Your task to perform on an android device: Search for Mexican restaurants on Maps Image 0: 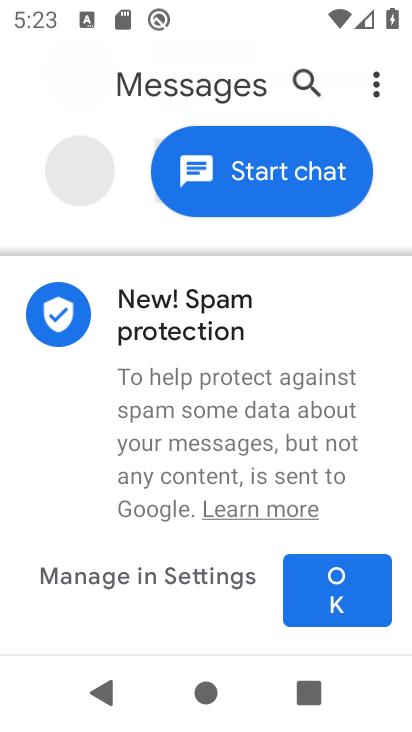
Step 0: press home button
Your task to perform on an android device: Search for Mexican restaurants on Maps Image 1: 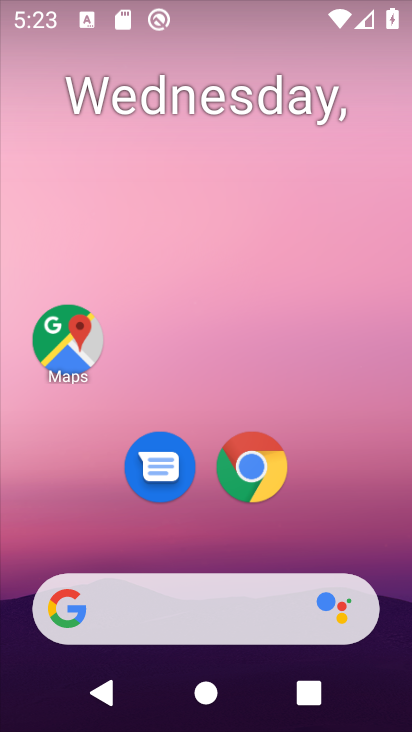
Step 1: drag from (322, 396) to (255, 113)
Your task to perform on an android device: Search for Mexican restaurants on Maps Image 2: 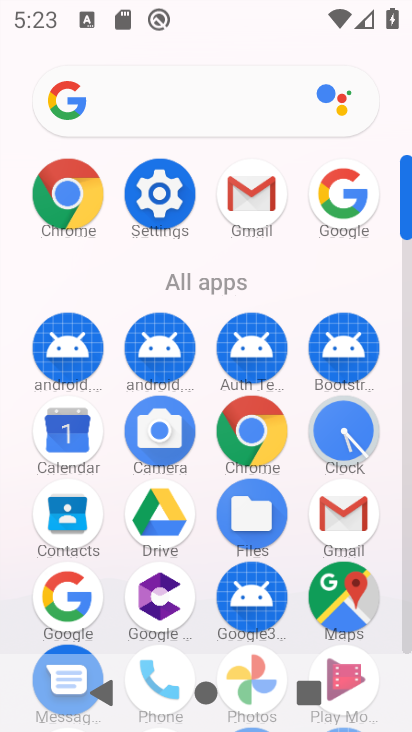
Step 2: click (346, 607)
Your task to perform on an android device: Search for Mexican restaurants on Maps Image 3: 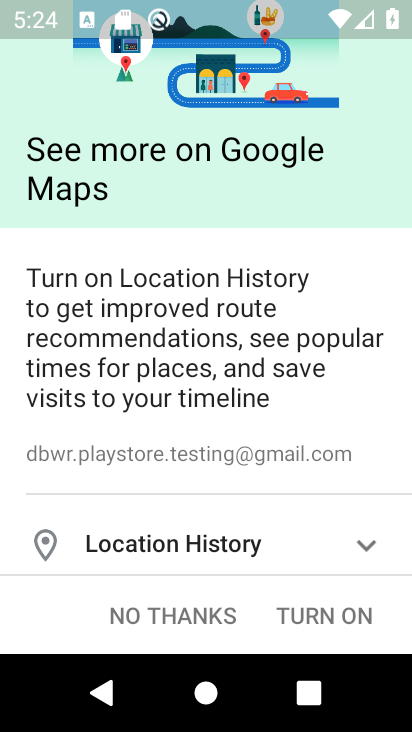
Step 3: click (219, 615)
Your task to perform on an android device: Search for Mexican restaurants on Maps Image 4: 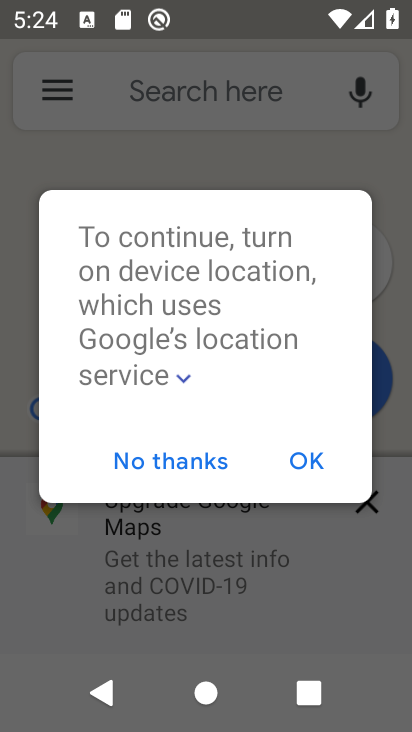
Step 4: click (206, 468)
Your task to perform on an android device: Search for Mexican restaurants on Maps Image 5: 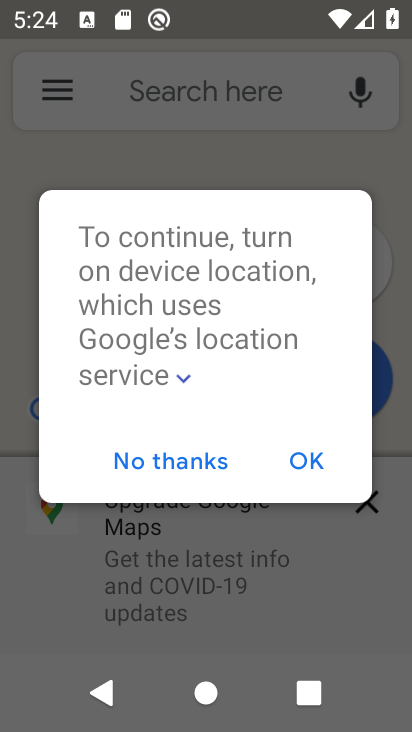
Step 5: click (237, 82)
Your task to perform on an android device: Search for Mexican restaurants on Maps Image 6: 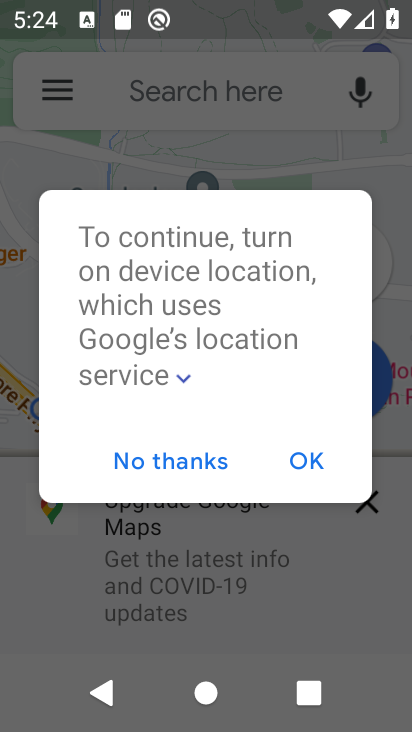
Step 6: click (186, 461)
Your task to perform on an android device: Search for Mexican restaurants on Maps Image 7: 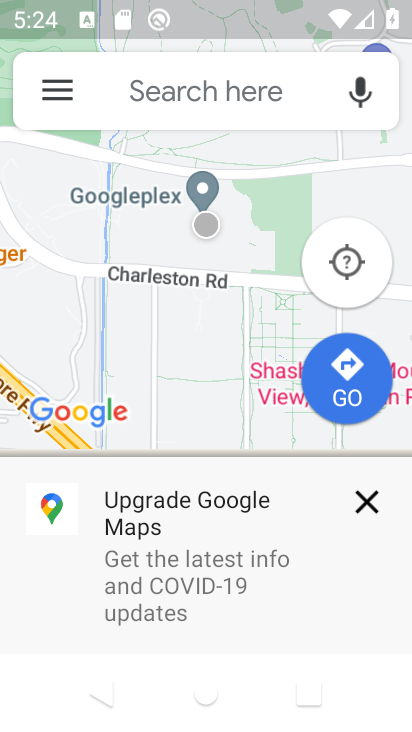
Step 7: click (231, 86)
Your task to perform on an android device: Search for Mexican restaurants on Maps Image 8: 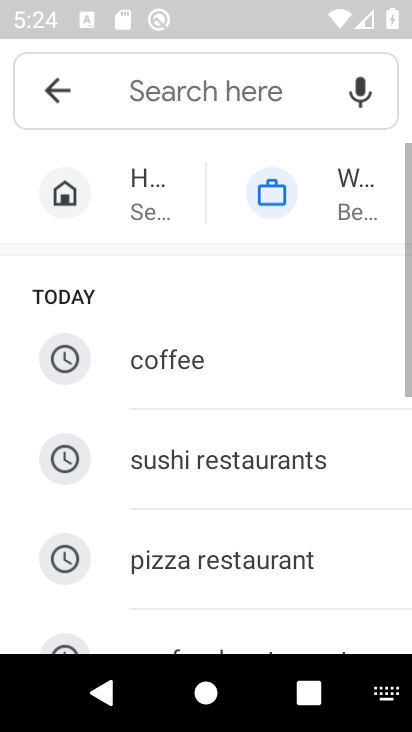
Step 8: drag from (302, 587) to (254, 219)
Your task to perform on an android device: Search for Mexican restaurants on Maps Image 9: 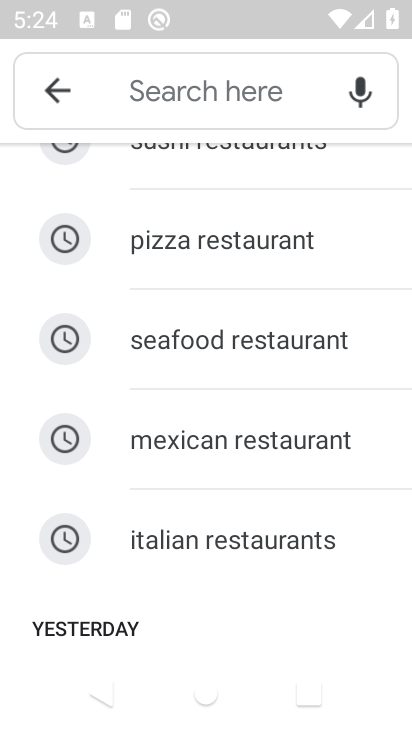
Step 9: click (225, 447)
Your task to perform on an android device: Search for Mexican restaurants on Maps Image 10: 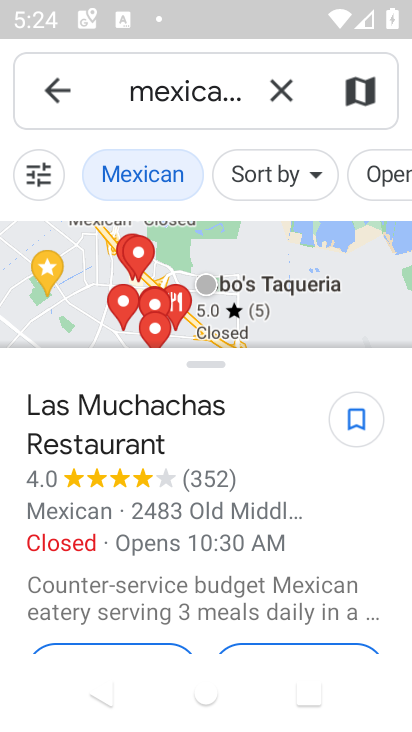
Step 10: task complete